Your task to perform on an android device: Open Yahoo.com Image 0: 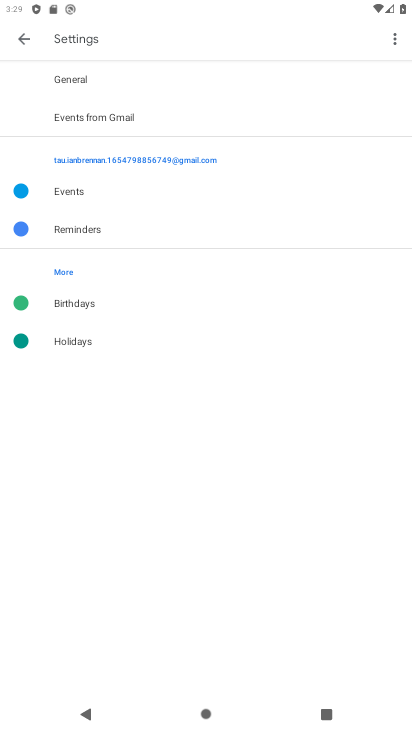
Step 0: press home button
Your task to perform on an android device: Open Yahoo.com Image 1: 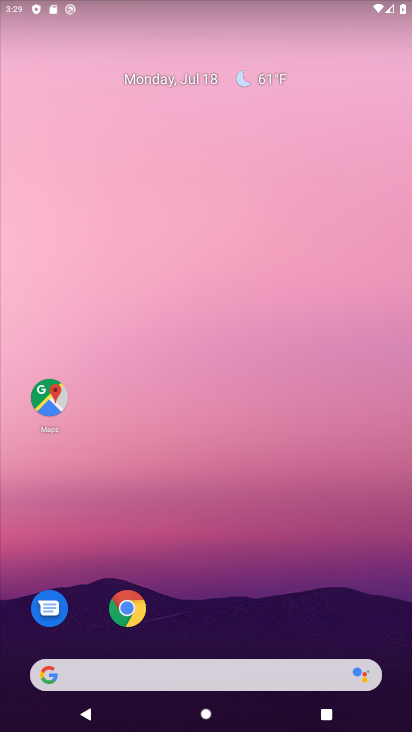
Step 1: drag from (112, 138) to (107, 40)
Your task to perform on an android device: Open Yahoo.com Image 2: 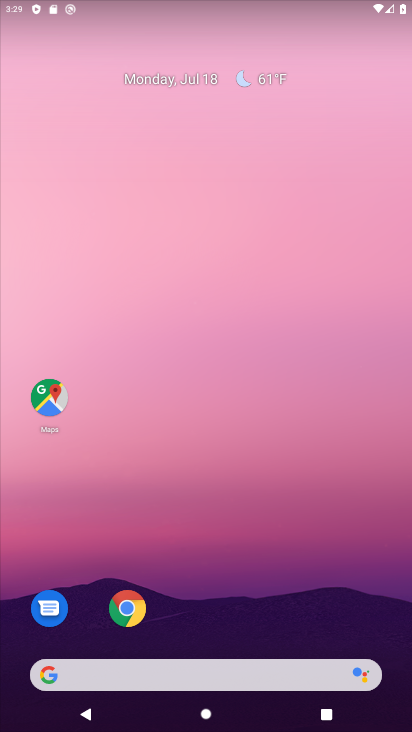
Step 2: drag from (328, 634) to (203, 23)
Your task to perform on an android device: Open Yahoo.com Image 3: 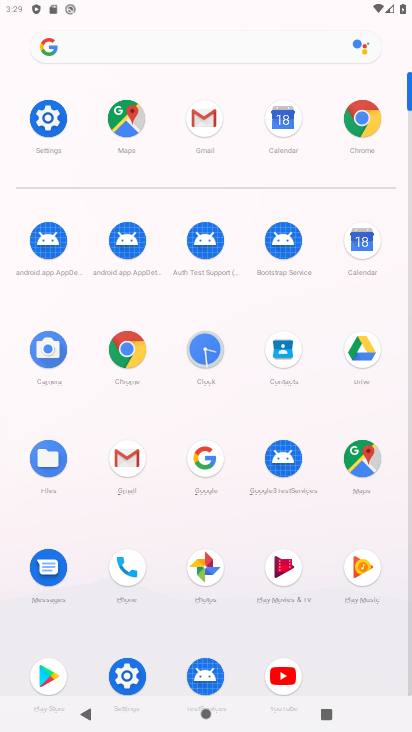
Step 3: click (361, 112)
Your task to perform on an android device: Open Yahoo.com Image 4: 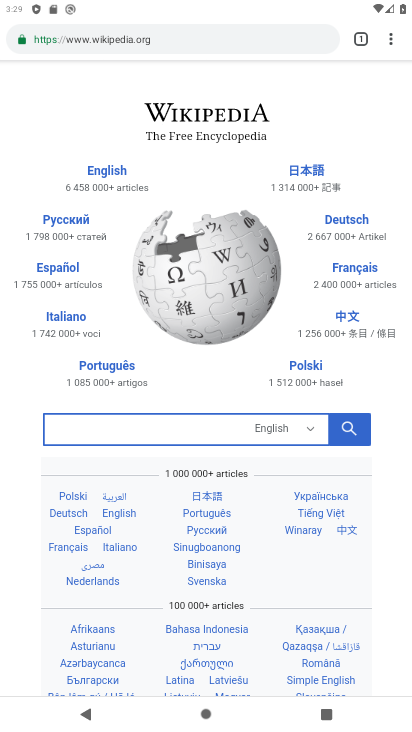
Step 4: click (206, 50)
Your task to perform on an android device: Open Yahoo.com Image 5: 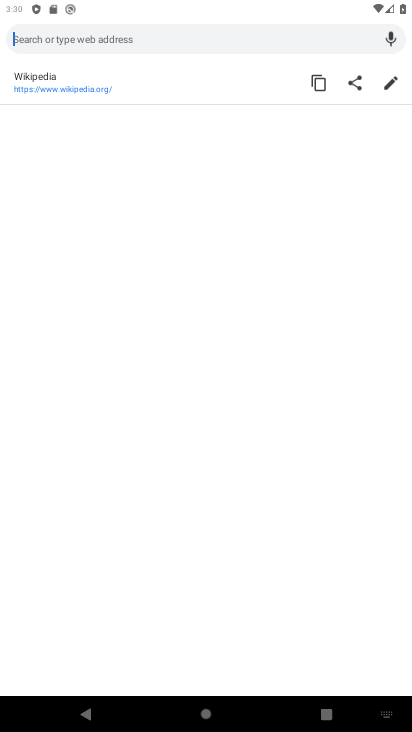
Step 5: type "yahoo.com"
Your task to perform on an android device: Open Yahoo.com Image 6: 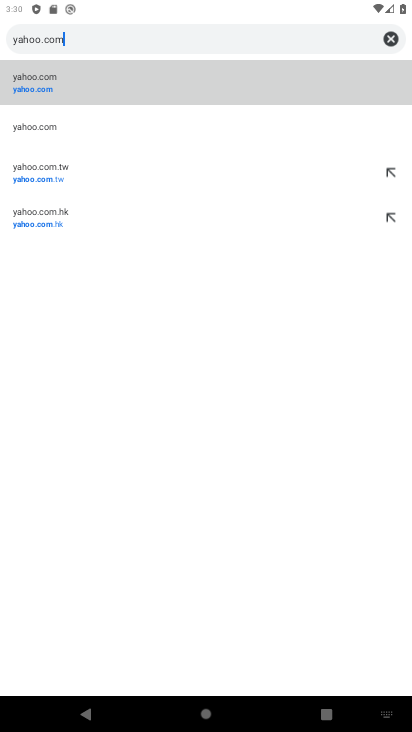
Step 6: click (38, 81)
Your task to perform on an android device: Open Yahoo.com Image 7: 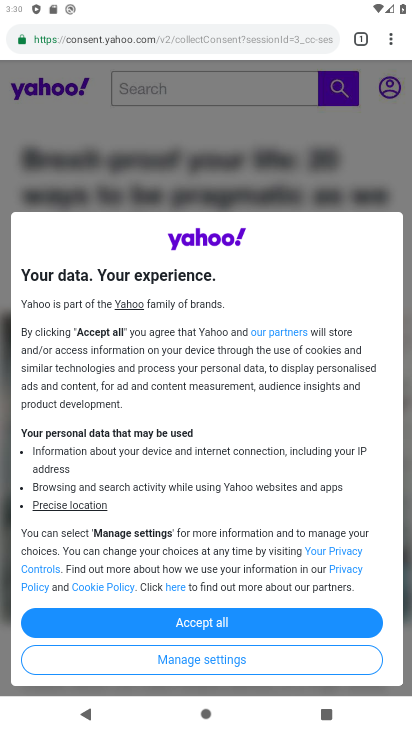
Step 7: task complete